Your task to perform on an android device: add a label to a message in the gmail app Image 0: 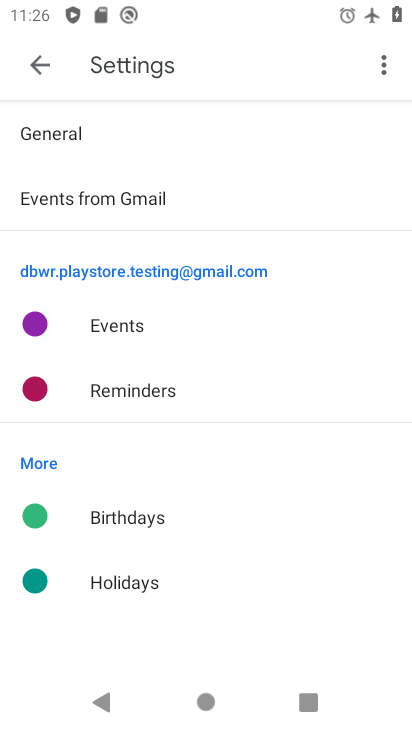
Step 0: press home button
Your task to perform on an android device: add a label to a message in the gmail app Image 1: 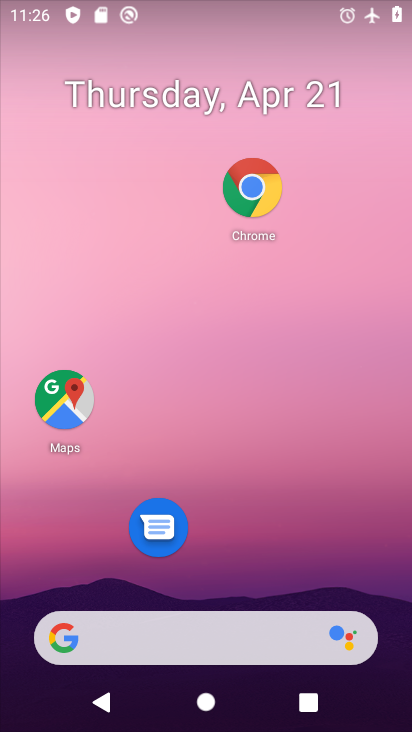
Step 1: drag from (257, 633) to (326, 118)
Your task to perform on an android device: add a label to a message in the gmail app Image 2: 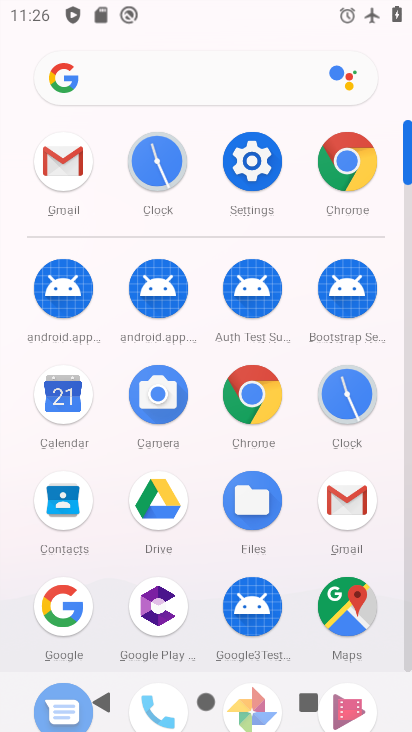
Step 2: click (353, 513)
Your task to perform on an android device: add a label to a message in the gmail app Image 3: 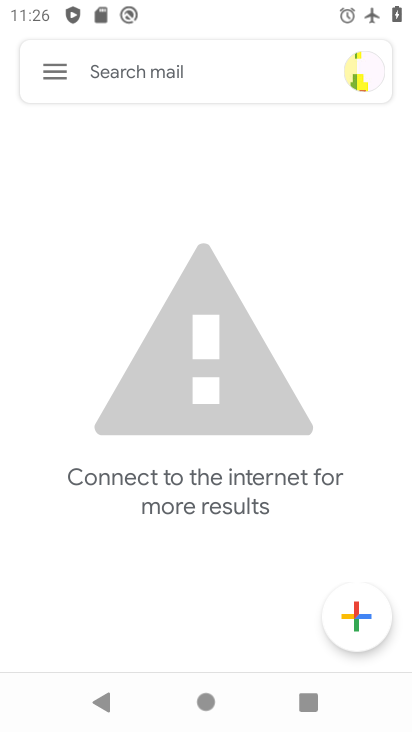
Step 3: click (60, 85)
Your task to perform on an android device: add a label to a message in the gmail app Image 4: 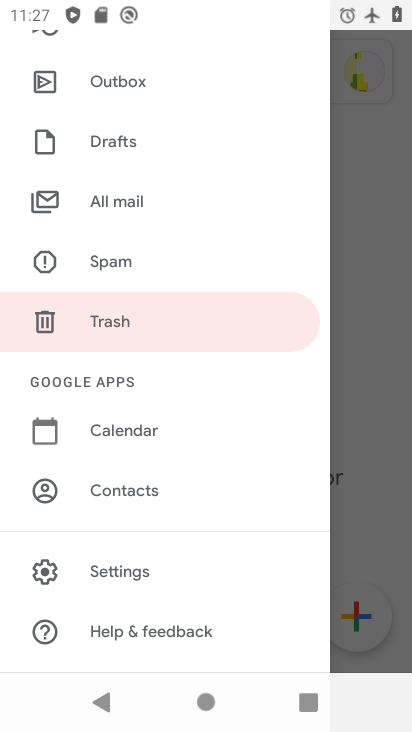
Step 4: click (163, 199)
Your task to perform on an android device: add a label to a message in the gmail app Image 5: 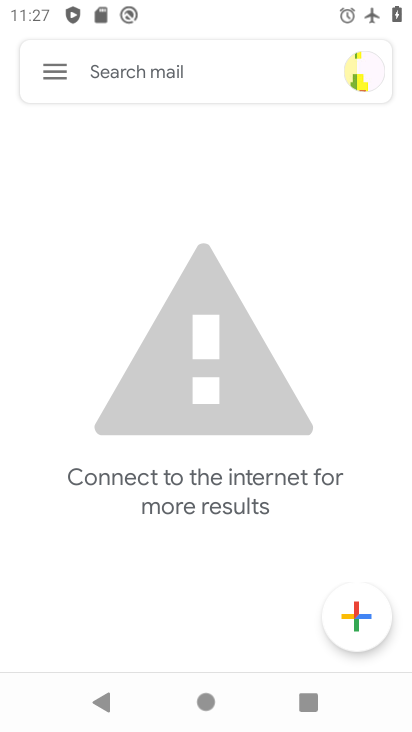
Step 5: task complete